Your task to perform on an android device: Search for Mexican restaurants on Maps Image 0: 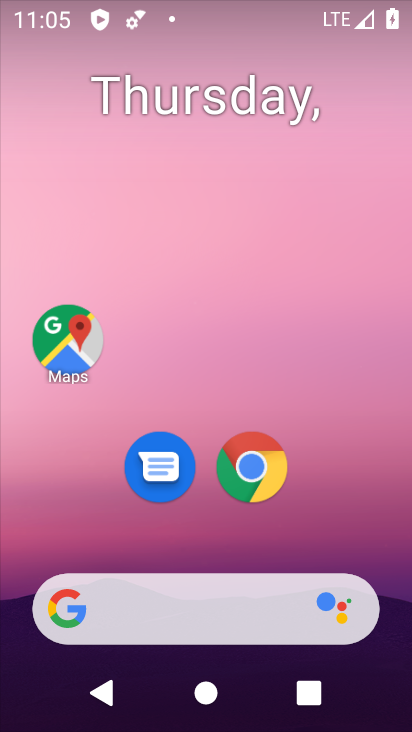
Step 0: click (77, 337)
Your task to perform on an android device: Search for Mexican restaurants on Maps Image 1: 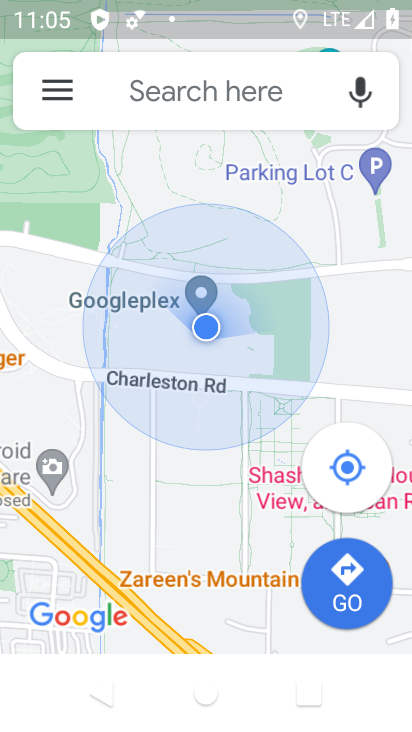
Step 1: click (172, 80)
Your task to perform on an android device: Search for Mexican restaurants on Maps Image 2: 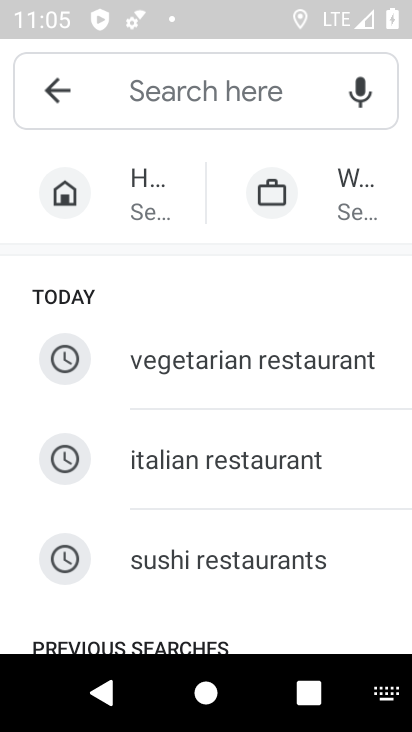
Step 2: type "mexican restr"
Your task to perform on an android device: Search for Mexican restaurants on Maps Image 3: 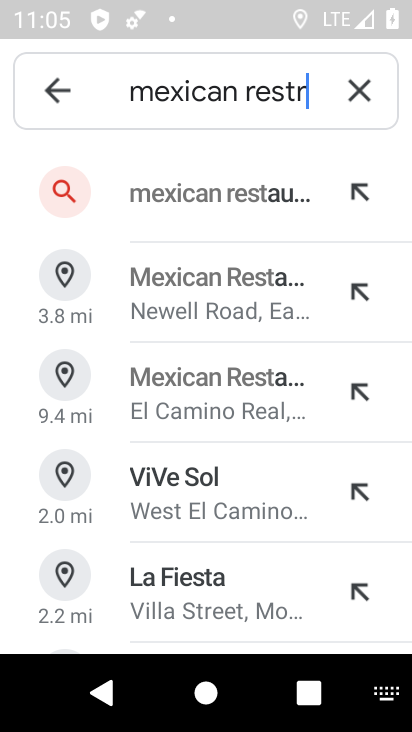
Step 3: click (240, 206)
Your task to perform on an android device: Search for Mexican restaurants on Maps Image 4: 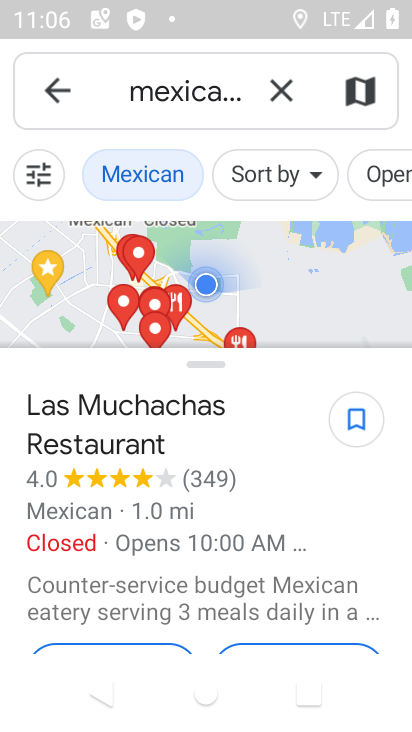
Step 4: task complete